Your task to perform on an android device: find which apps use the phone's location Image 0: 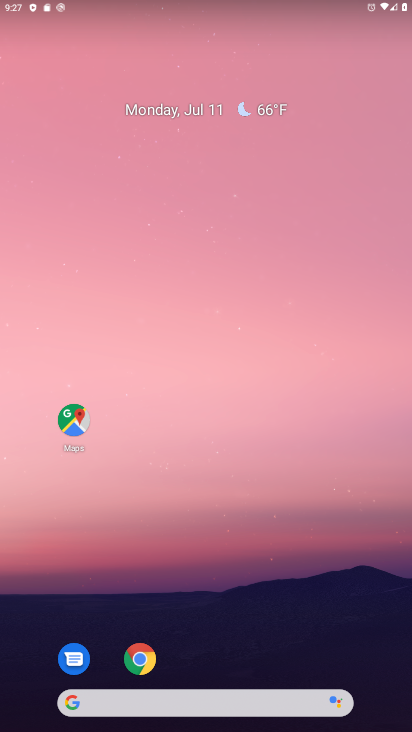
Step 0: drag from (343, 650) to (334, 209)
Your task to perform on an android device: find which apps use the phone's location Image 1: 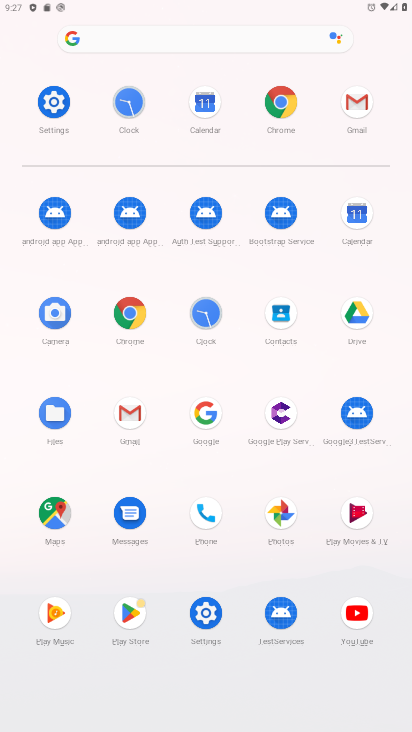
Step 1: click (204, 616)
Your task to perform on an android device: find which apps use the phone's location Image 2: 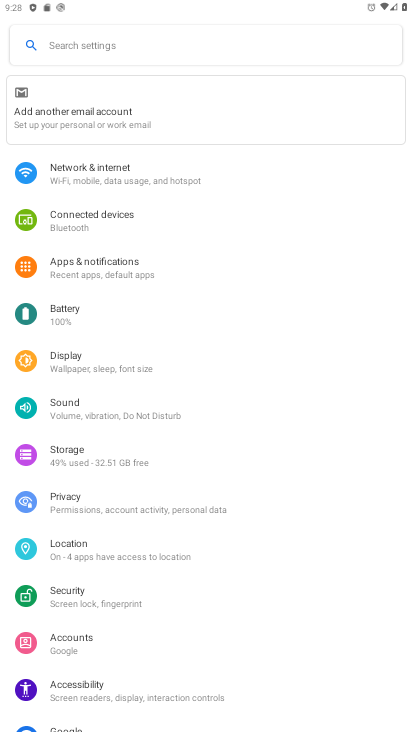
Step 2: click (155, 553)
Your task to perform on an android device: find which apps use the phone's location Image 3: 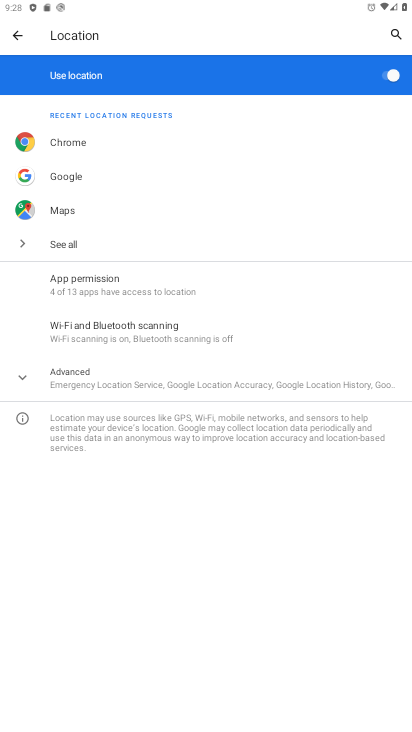
Step 3: click (136, 281)
Your task to perform on an android device: find which apps use the phone's location Image 4: 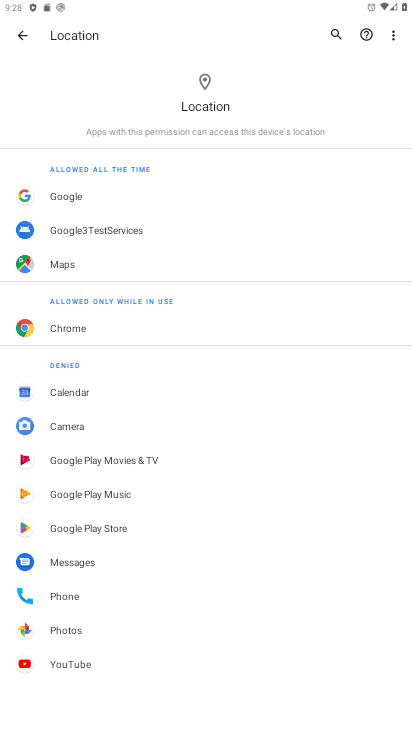
Step 4: click (88, 630)
Your task to perform on an android device: find which apps use the phone's location Image 5: 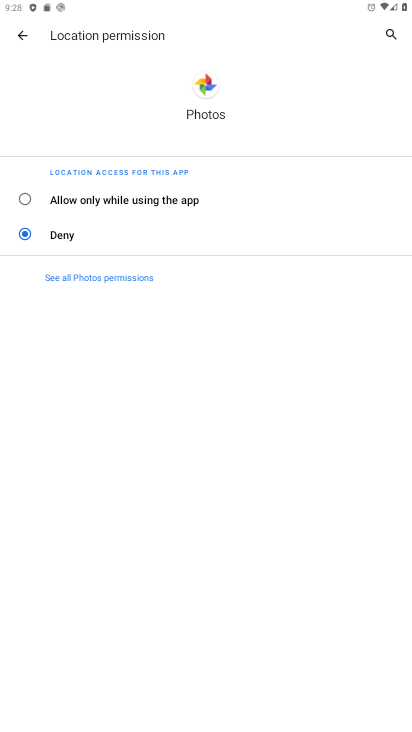
Step 5: click (23, 195)
Your task to perform on an android device: find which apps use the phone's location Image 6: 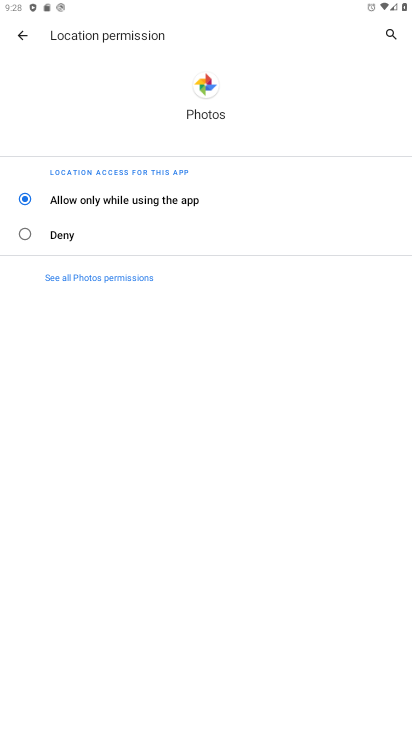
Step 6: task complete